Your task to perform on an android device: Open Chrome and go to settings Image 0: 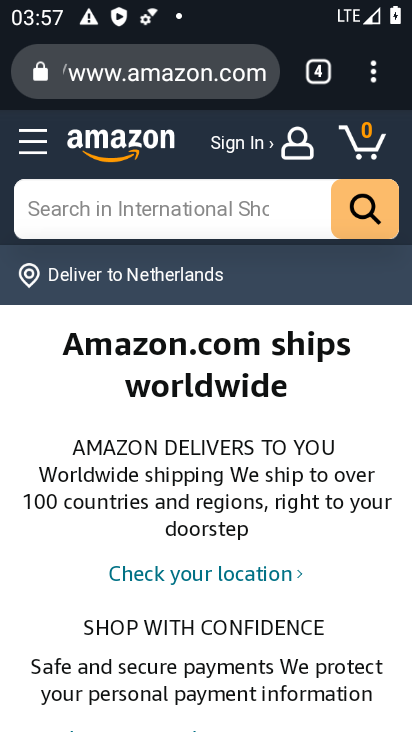
Step 0: press back button
Your task to perform on an android device: Open Chrome and go to settings Image 1: 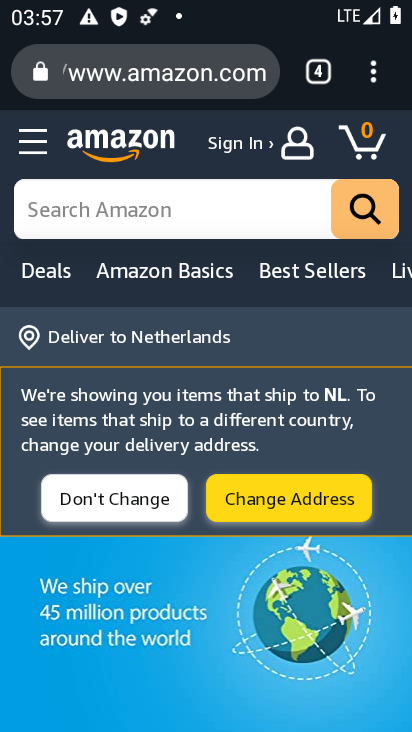
Step 1: press home button
Your task to perform on an android device: Open Chrome and go to settings Image 2: 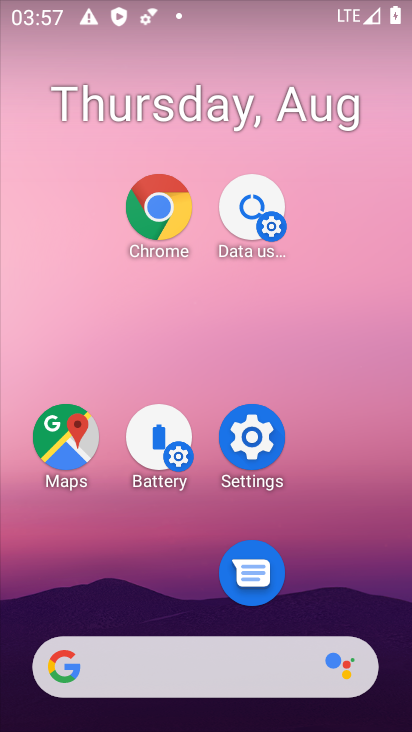
Step 2: drag from (162, 574) to (114, 273)
Your task to perform on an android device: Open Chrome and go to settings Image 3: 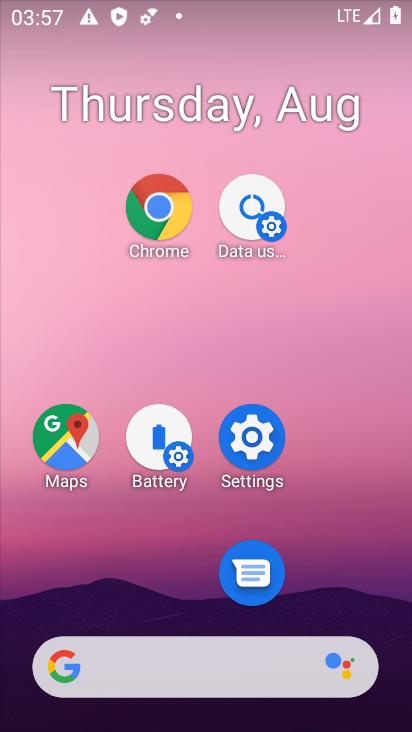
Step 3: click (134, 302)
Your task to perform on an android device: Open Chrome and go to settings Image 4: 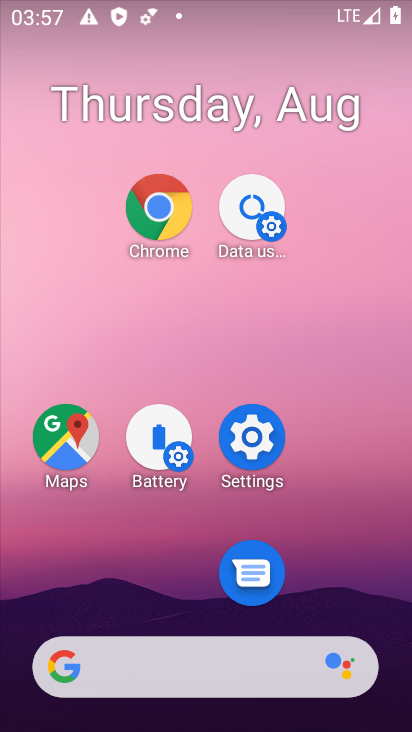
Step 4: drag from (196, 546) to (154, 259)
Your task to perform on an android device: Open Chrome and go to settings Image 5: 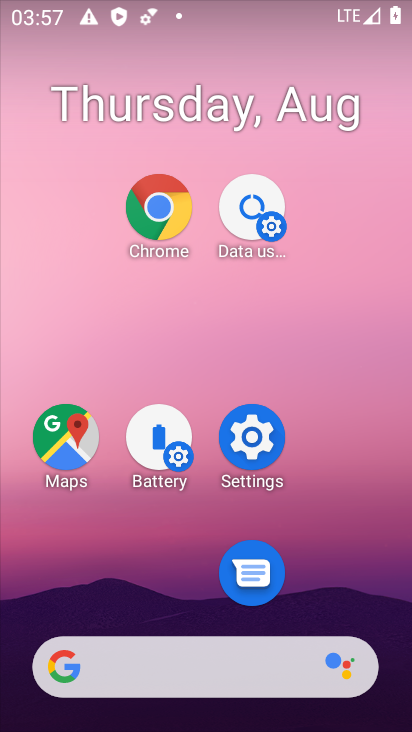
Step 5: drag from (228, 397) to (189, 92)
Your task to perform on an android device: Open Chrome and go to settings Image 6: 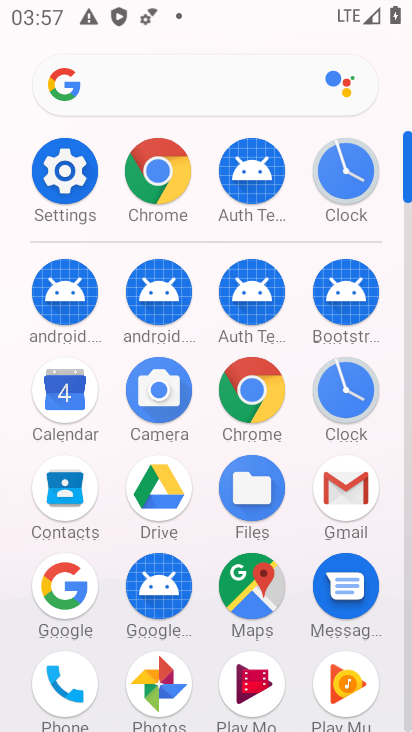
Step 6: click (147, 181)
Your task to perform on an android device: Open Chrome and go to settings Image 7: 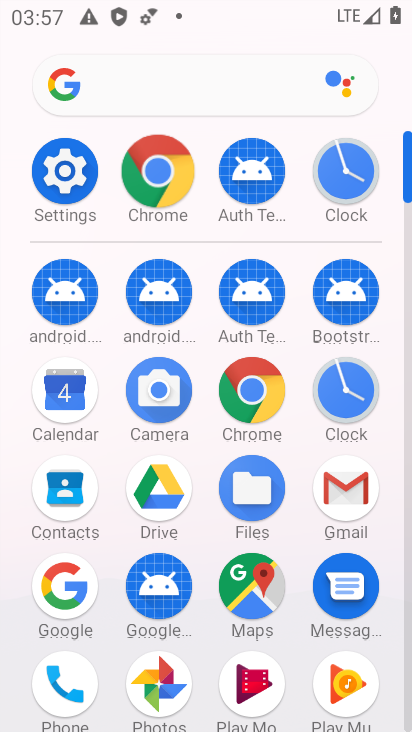
Step 7: click (147, 181)
Your task to perform on an android device: Open Chrome and go to settings Image 8: 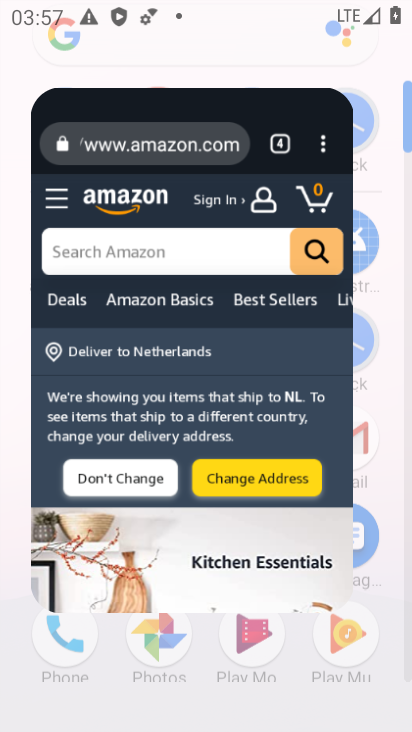
Step 8: click (147, 181)
Your task to perform on an android device: Open Chrome and go to settings Image 9: 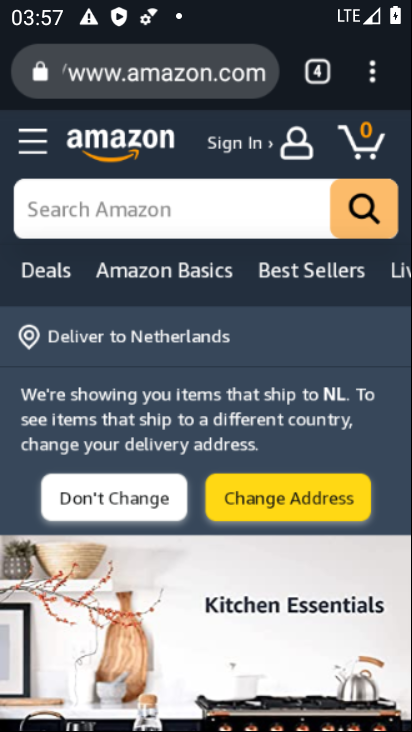
Step 9: click (147, 180)
Your task to perform on an android device: Open Chrome and go to settings Image 10: 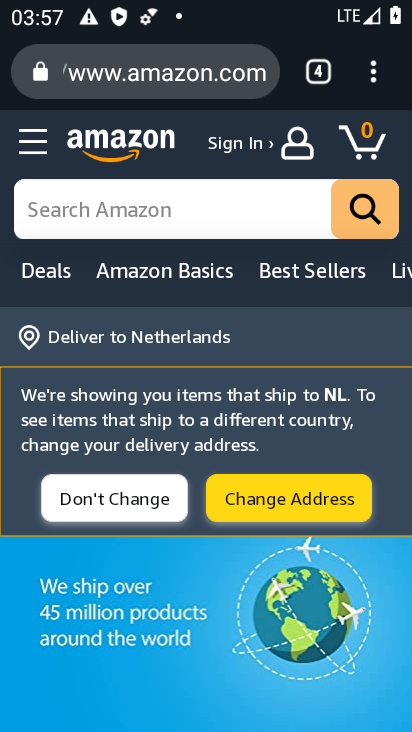
Step 10: drag from (376, 70) to (131, 559)
Your task to perform on an android device: Open Chrome and go to settings Image 11: 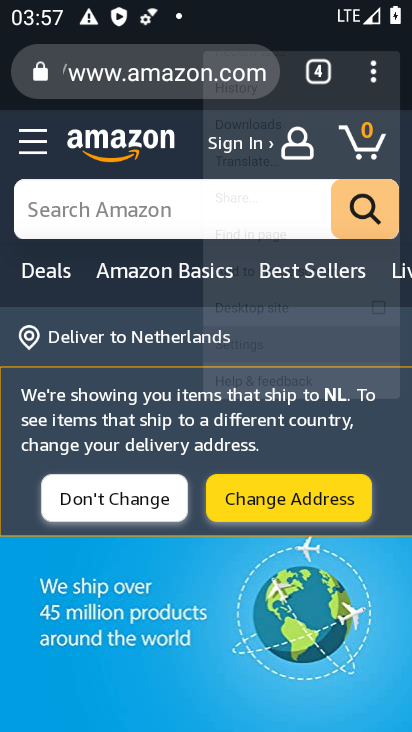
Step 11: click (132, 559)
Your task to perform on an android device: Open Chrome and go to settings Image 12: 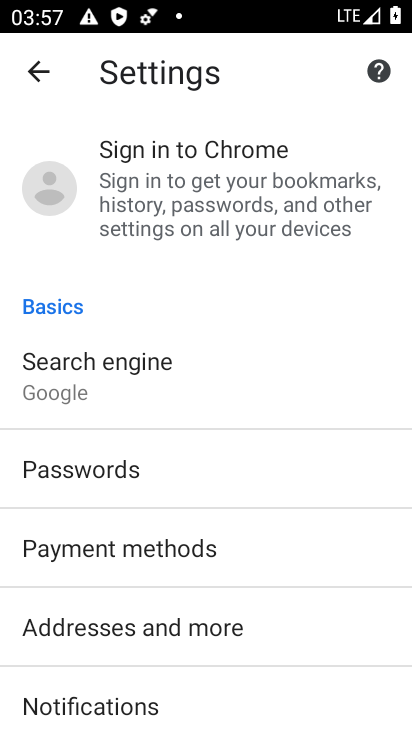
Step 12: task complete